Your task to perform on an android device: Open Android settings Image 0: 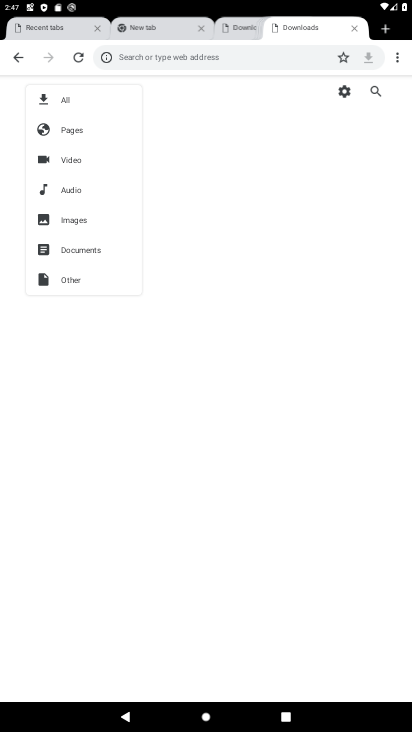
Step 0: press home button
Your task to perform on an android device: Open Android settings Image 1: 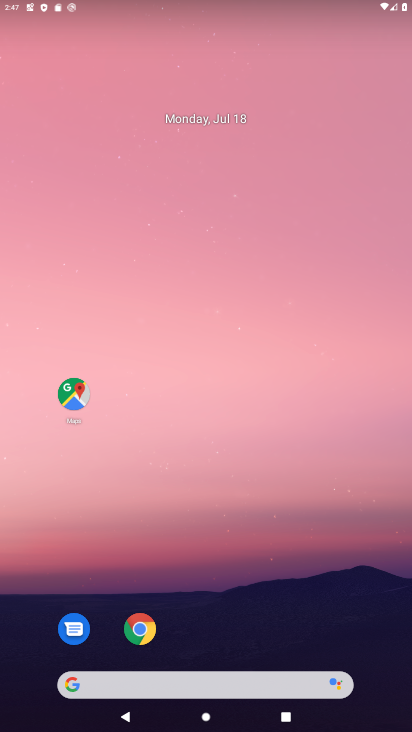
Step 1: drag from (205, 631) to (218, 144)
Your task to perform on an android device: Open Android settings Image 2: 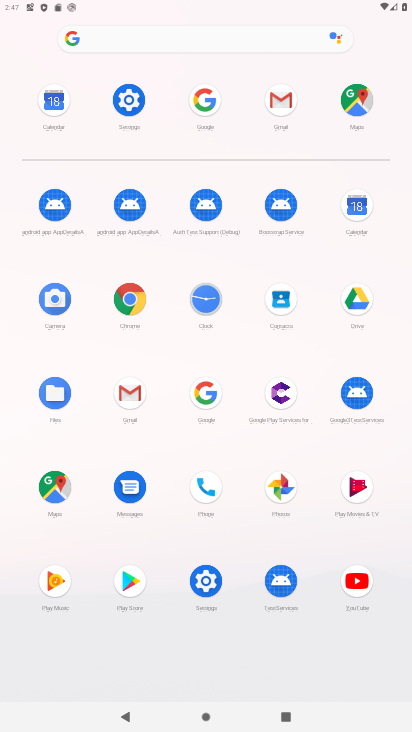
Step 2: click (95, 113)
Your task to perform on an android device: Open Android settings Image 3: 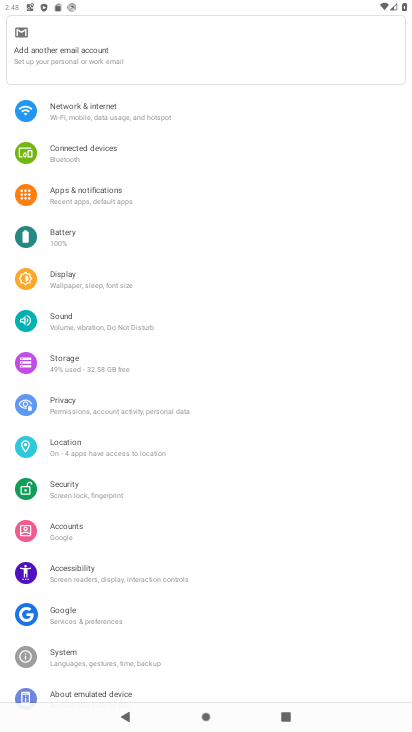
Step 3: task complete